Your task to perform on an android device: turn on showing notifications on the lock screen Image 0: 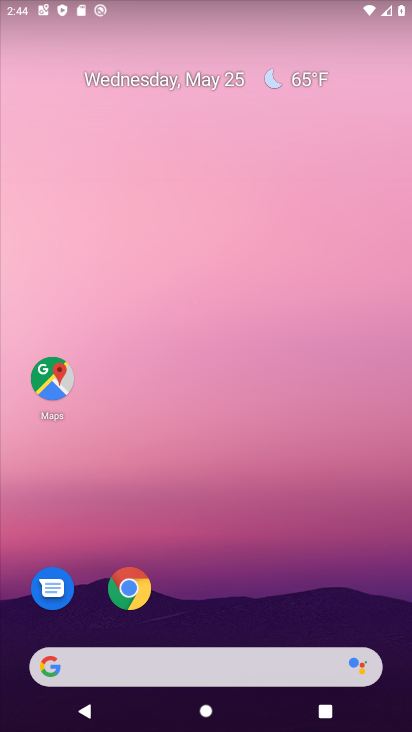
Step 0: drag from (210, 576) to (268, 224)
Your task to perform on an android device: turn on showing notifications on the lock screen Image 1: 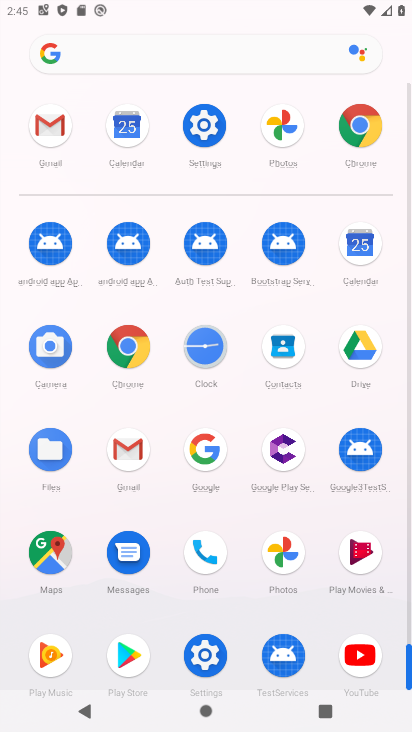
Step 1: click (207, 129)
Your task to perform on an android device: turn on showing notifications on the lock screen Image 2: 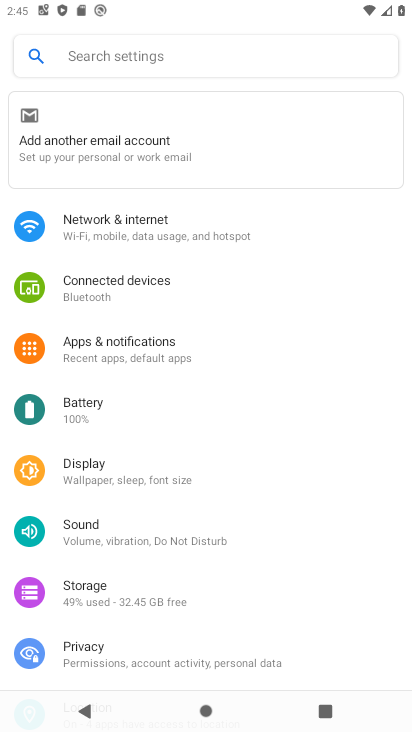
Step 2: click (121, 352)
Your task to perform on an android device: turn on showing notifications on the lock screen Image 3: 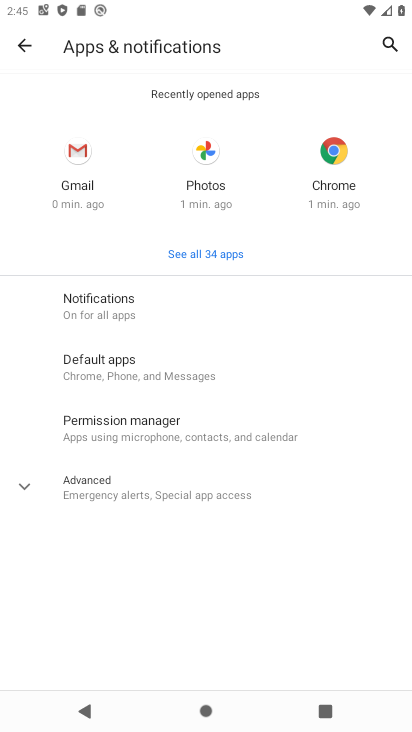
Step 3: click (121, 313)
Your task to perform on an android device: turn on showing notifications on the lock screen Image 4: 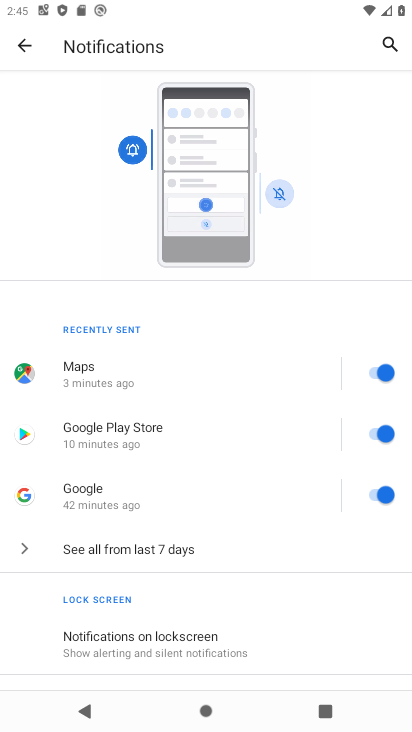
Step 4: click (167, 636)
Your task to perform on an android device: turn on showing notifications on the lock screen Image 5: 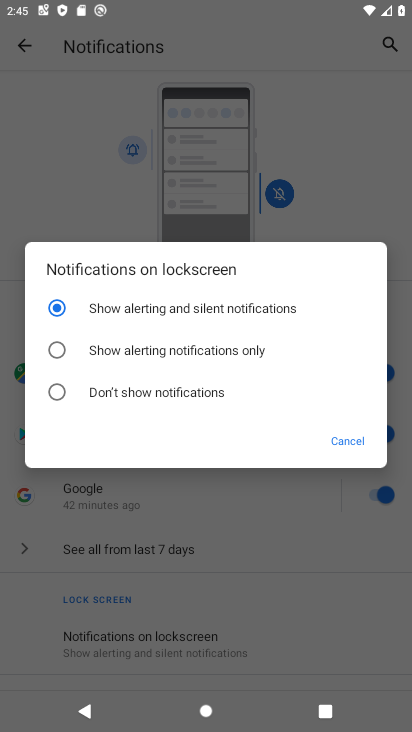
Step 5: task complete